Your task to perform on an android device: When is my next appointment? Image 0: 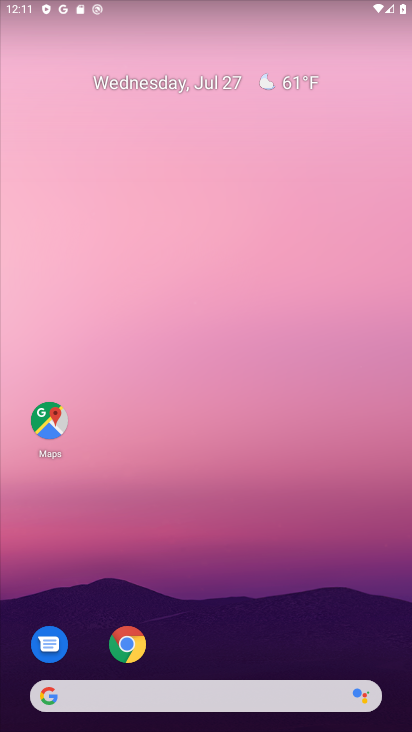
Step 0: drag from (166, 594) to (52, 231)
Your task to perform on an android device: When is my next appointment? Image 1: 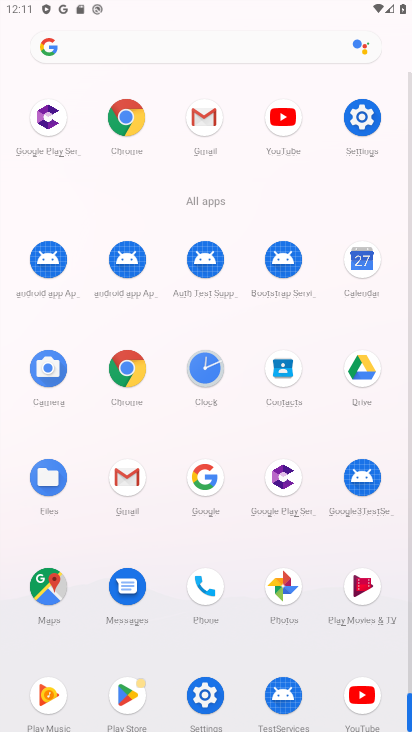
Step 1: click (349, 247)
Your task to perform on an android device: When is my next appointment? Image 2: 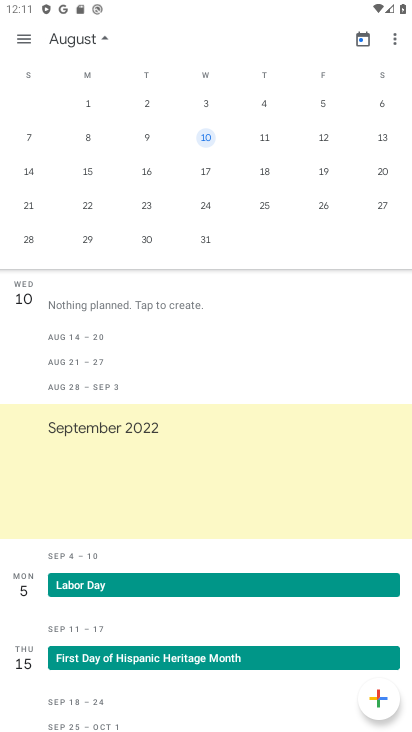
Step 2: click (359, 41)
Your task to perform on an android device: When is my next appointment? Image 3: 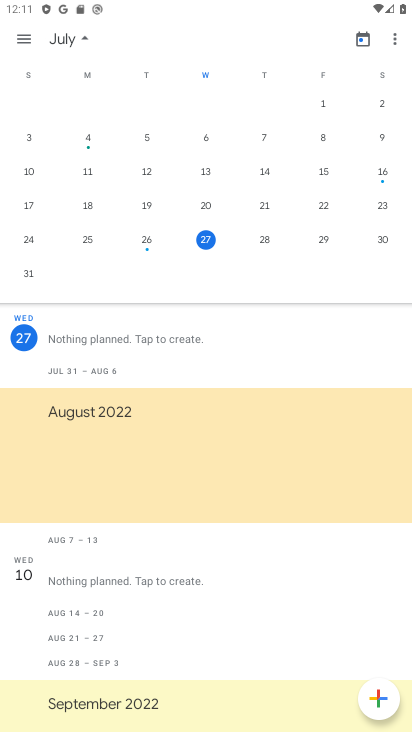
Step 3: click (208, 244)
Your task to perform on an android device: When is my next appointment? Image 4: 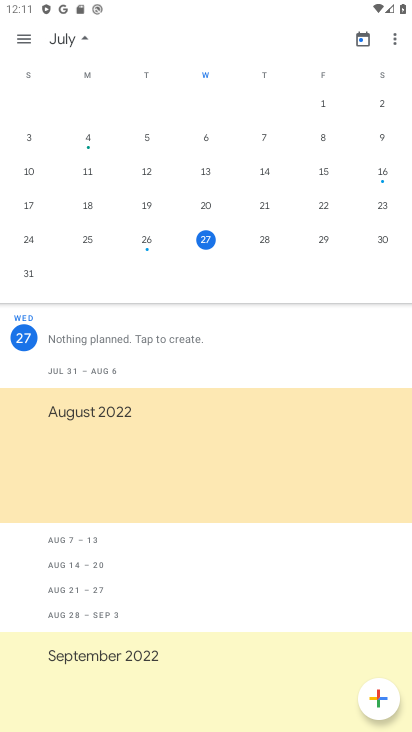
Step 4: task complete